Your task to perform on an android device: turn notification dots off Image 0: 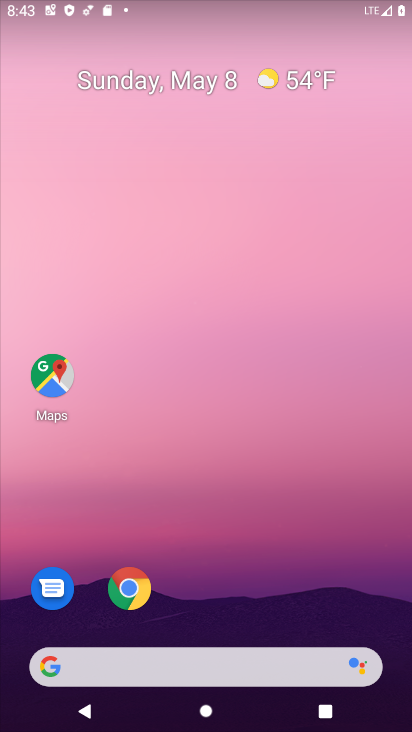
Step 0: click (125, 580)
Your task to perform on an android device: turn notification dots off Image 1: 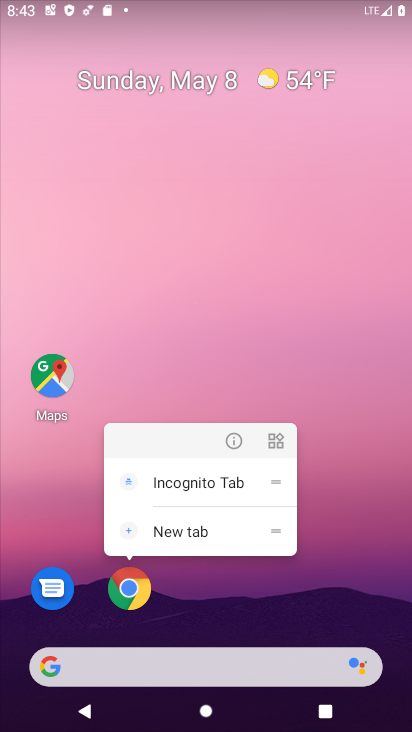
Step 1: click (360, 86)
Your task to perform on an android device: turn notification dots off Image 2: 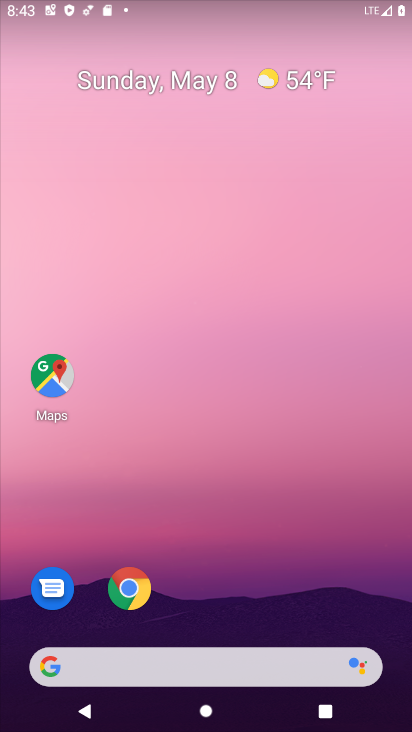
Step 2: drag from (107, 437) to (336, 8)
Your task to perform on an android device: turn notification dots off Image 3: 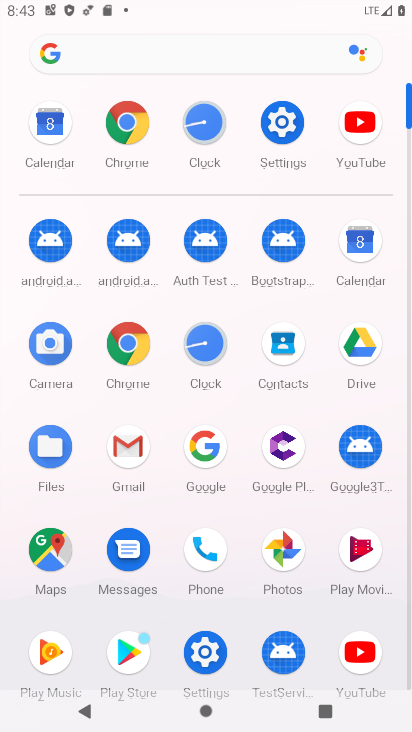
Step 3: click (272, 123)
Your task to perform on an android device: turn notification dots off Image 4: 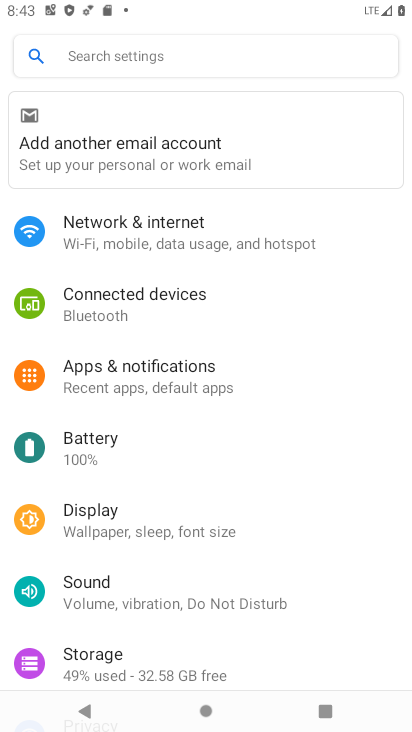
Step 4: click (161, 370)
Your task to perform on an android device: turn notification dots off Image 5: 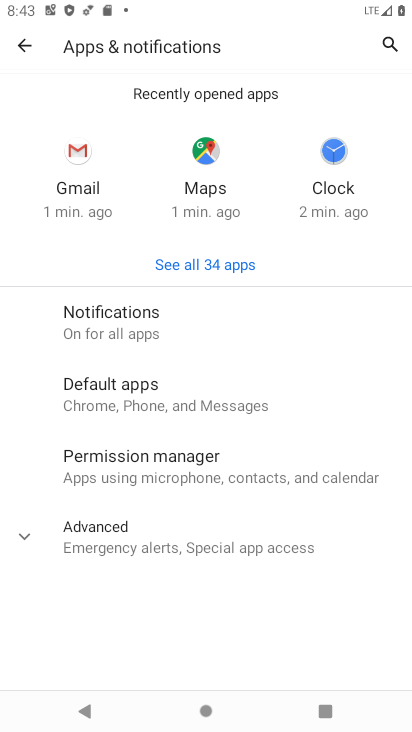
Step 5: click (177, 319)
Your task to perform on an android device: turn notification dots off Image 6: 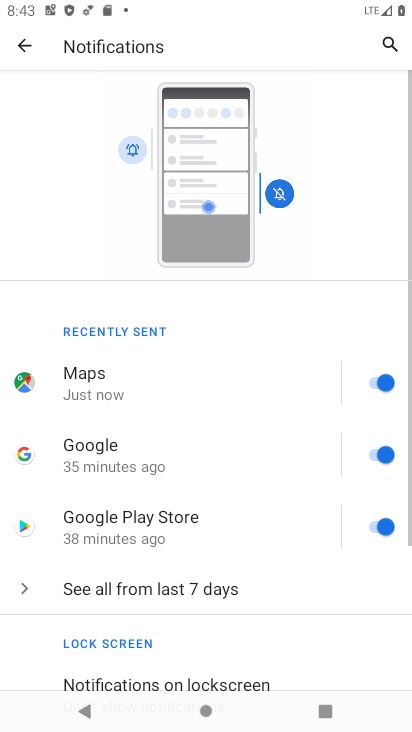
Step 6: drag from (231, 646) to (296, 299)
Your task to perform on an android device: turn notification dots off Image 7: 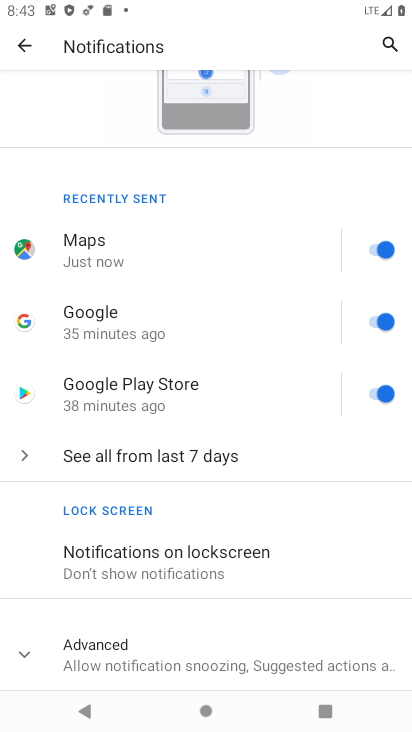
Step 7: click (198, 664)
Your task to perform on an android device: turn notification dots off Image 8: 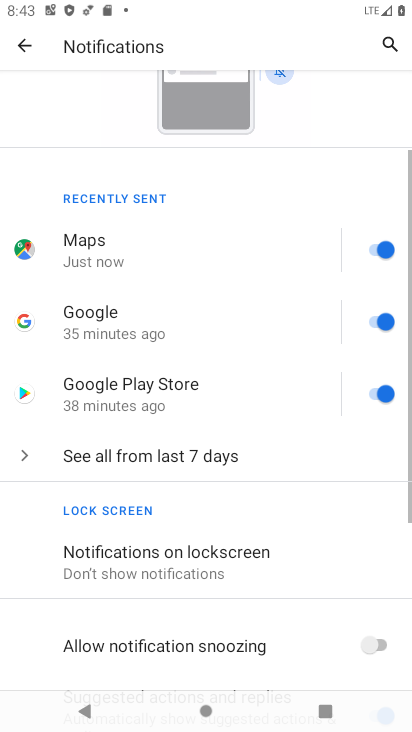
Step 8: drag from (213, 604) to (309, 215)
Your task to perform on an android device: turn notification dots off Image 9: 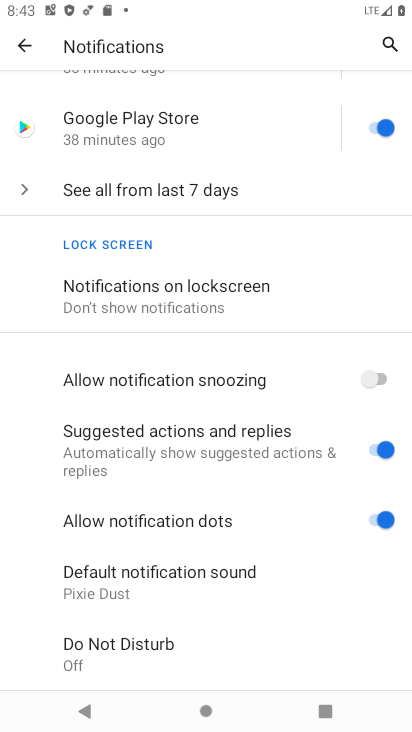
Step 9: click (394, 521)
Your task to perform on an android device: turn notification dots off Image 10: 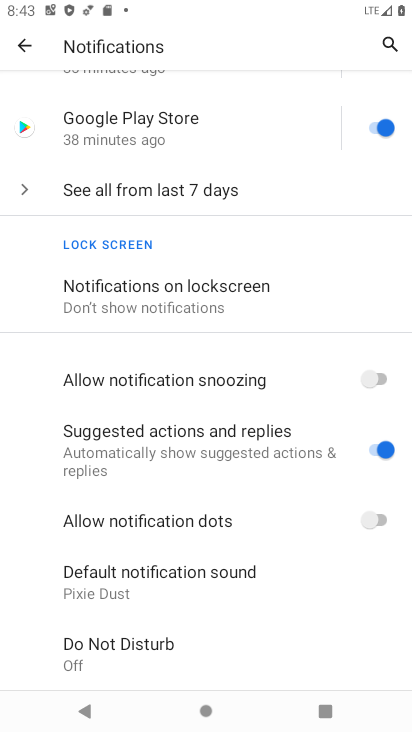
Step 10: task complete